Your task to perform on an android device: Go to Google maps Image 0: 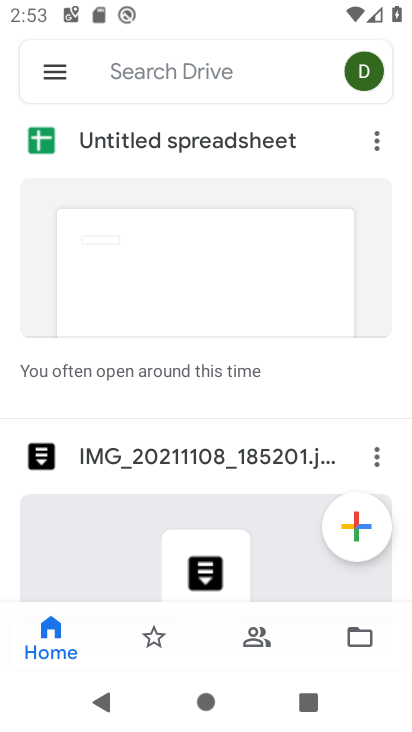
Step 0: press home button
Your task to perform on an android device: Go to Google maps Image 1: 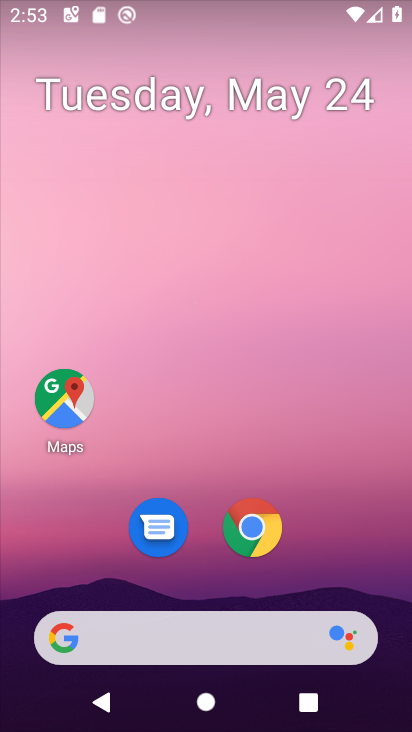
Step 1: click (66, 397)
Your task to perform on an android device: Go to Google maps Image 2: 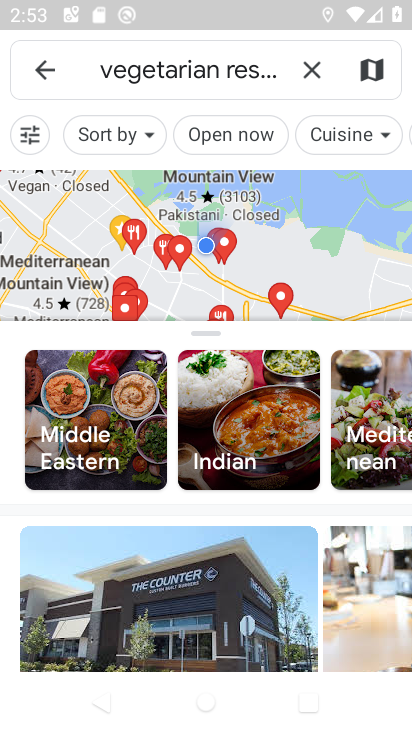
Step 2: task complete